Your task to perform on an android device: change the clock display to analog Image 0: 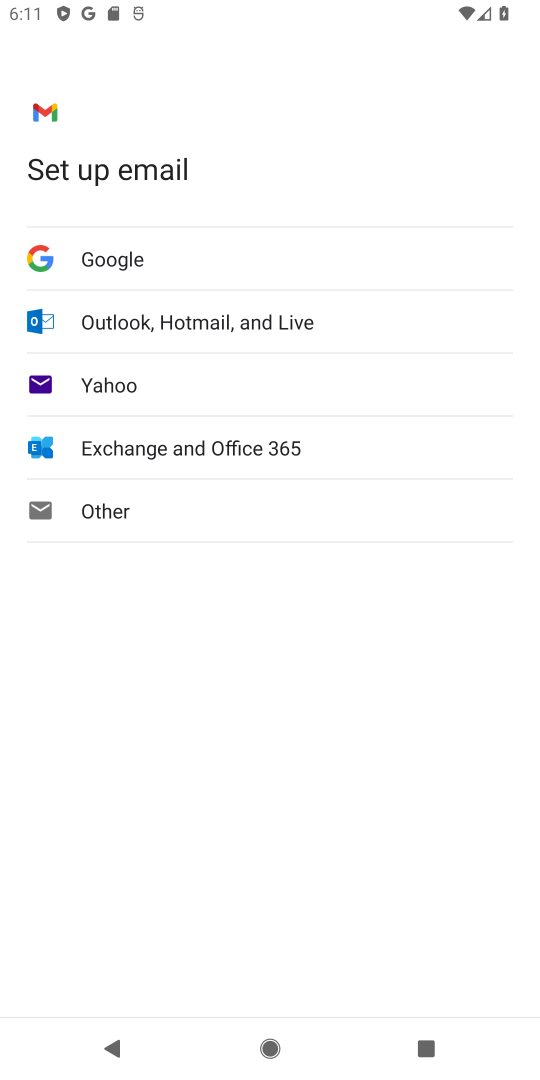
Step 0: press home button
Your task to perform on an android device: change the clock display to analog Image 1: 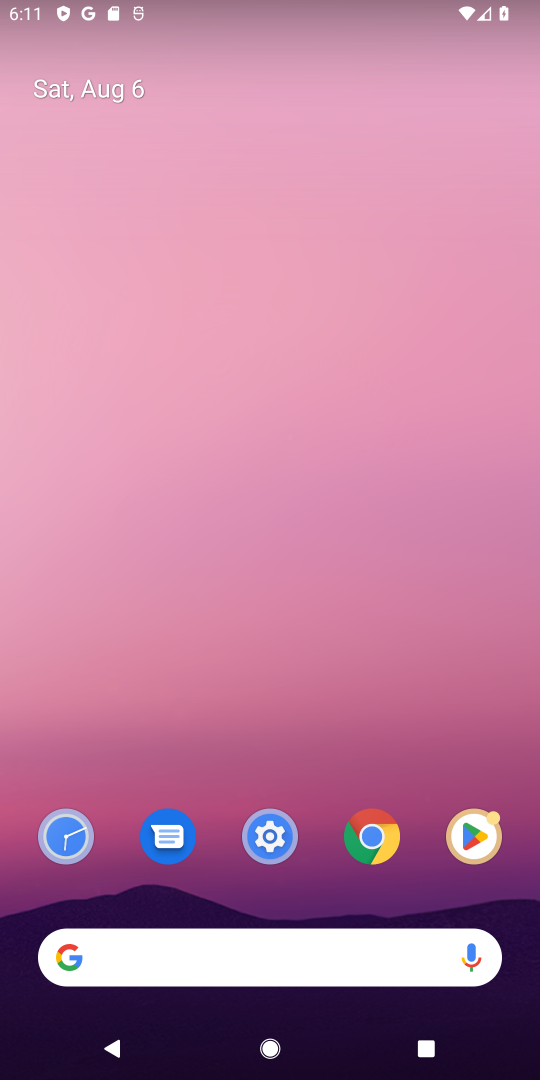
Step 1: drag from (399, 901) to (297, 27)
Your task to perform on an android device: change the clock display to analog Image 2: 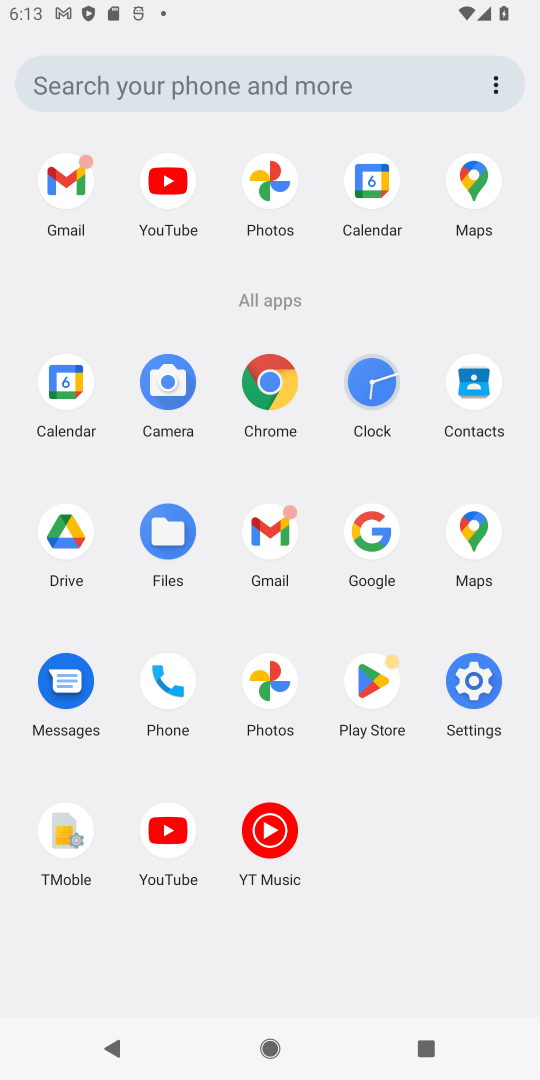
Step 2: click (353, 401)
Your task to perform on an android device: change the clock display to analog Image 3: 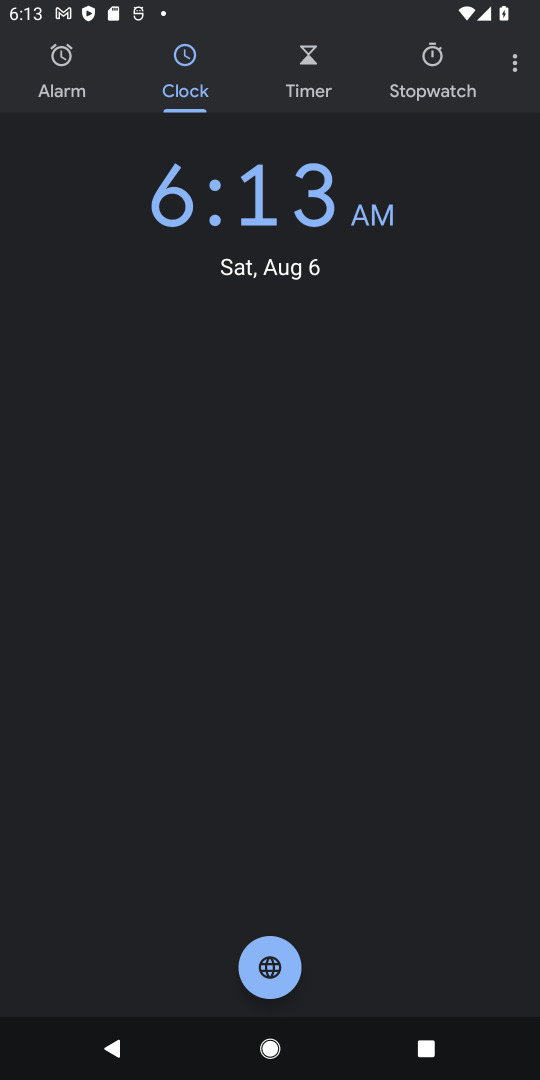
Step 3: click (513, 63)
Your task to perform on an android device: change the clock display to analog Image 4: 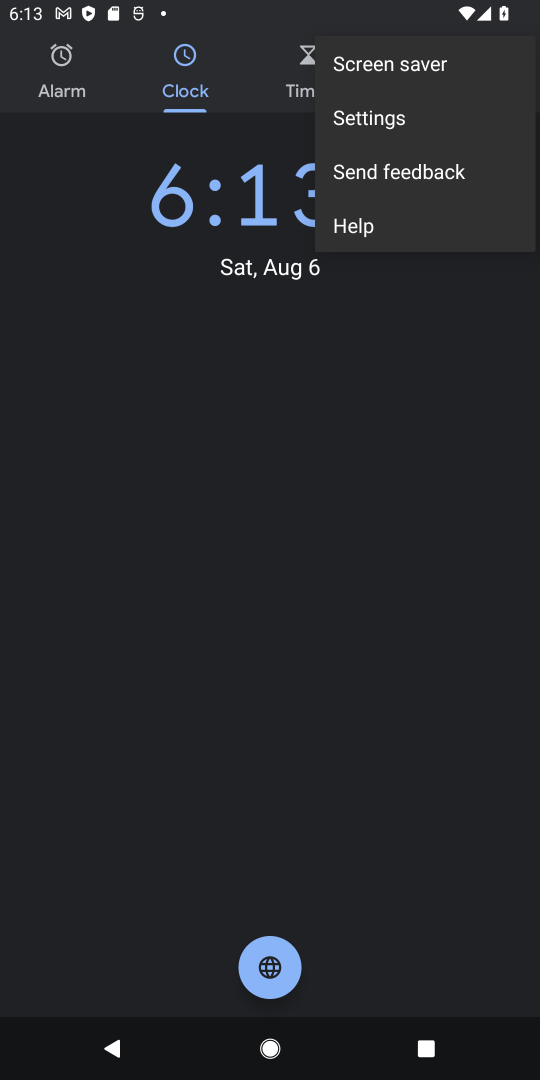
Step 4: click (409, 120)
Your task to perform on an android device: change the clock display to analog Image 5: 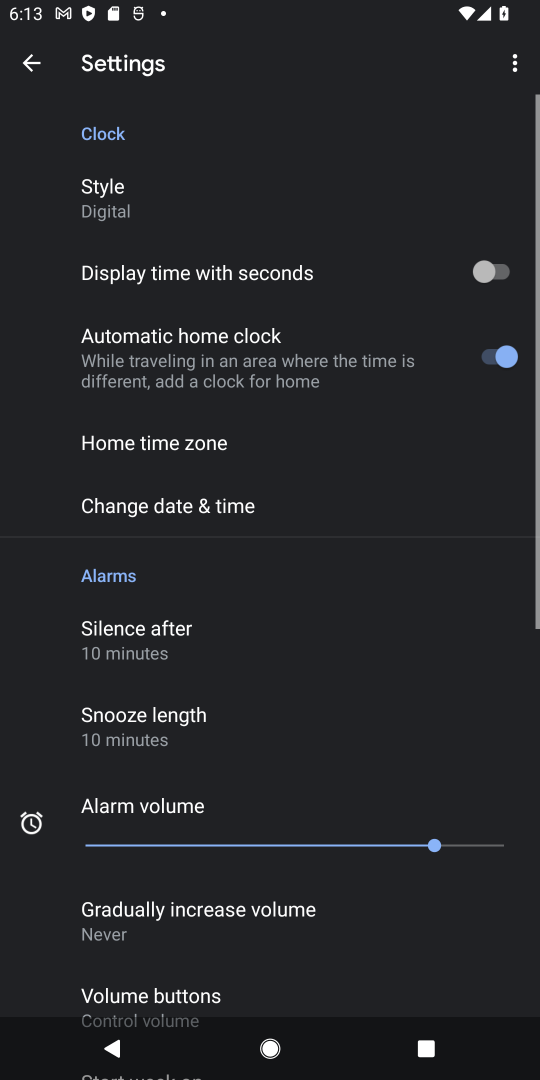
Step 5: click (143, 201)
Your task to perform on an android device: change the clock display to analog Image 6: 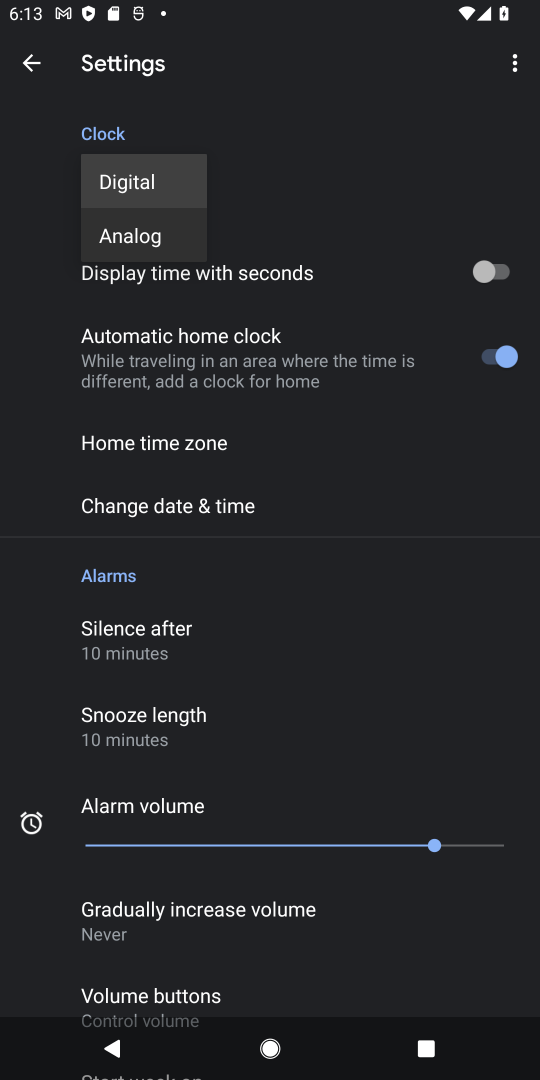
Step 6: click (132, 242)
Your task to perform on an android device: change the clock display to analog Image 7: 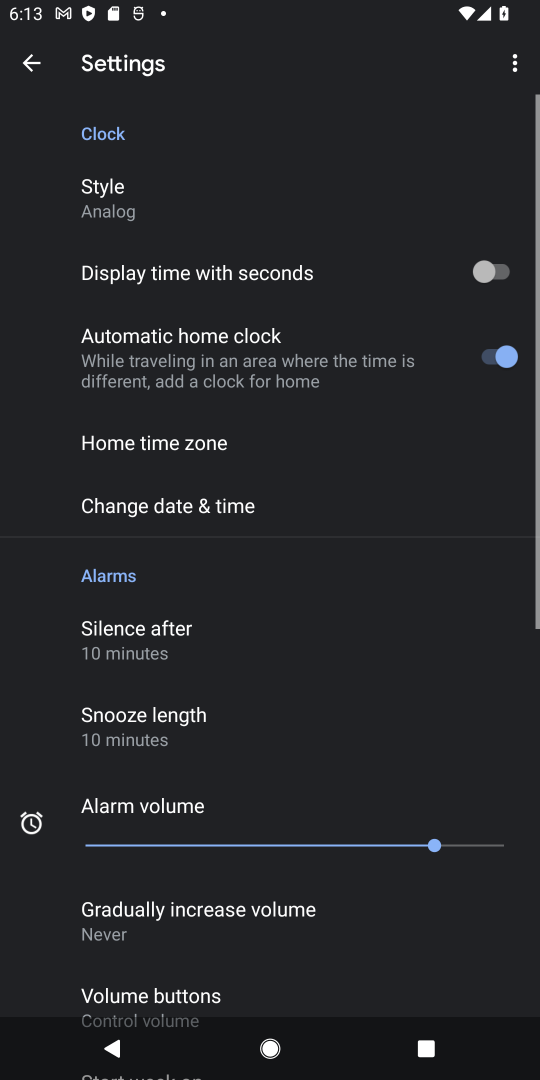
Step 7: task complete